Your task to perform on an android device: Open the stopwatch Image 0: 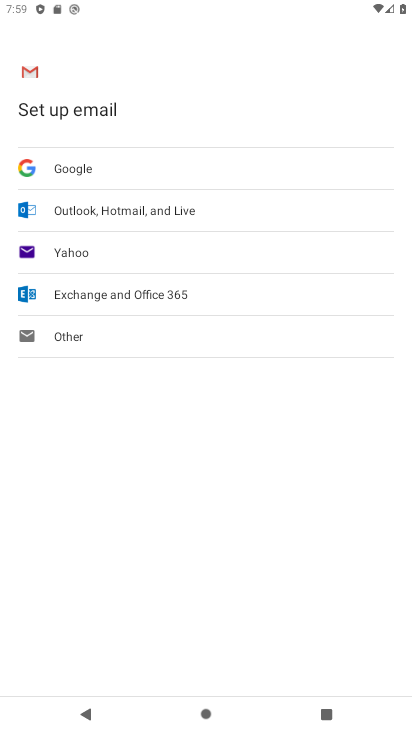
Step 0: press back button
Your task to perform on an android device: Open the stopwatch Image 1: 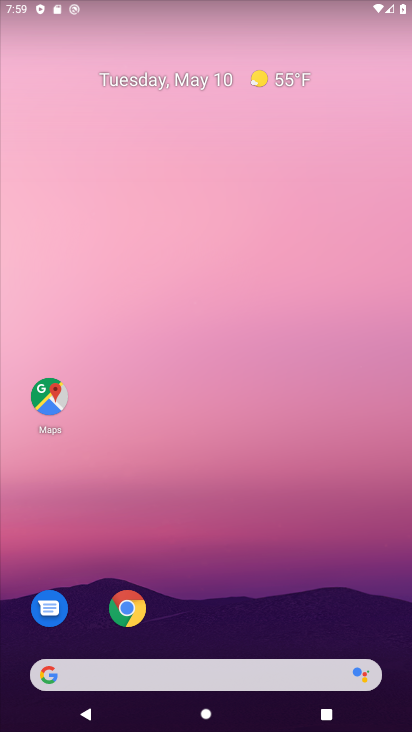
Step 1: drag from (256, 604) to (178, 130)
Your task to perform on an android device: Open the stopwatch Image 2: 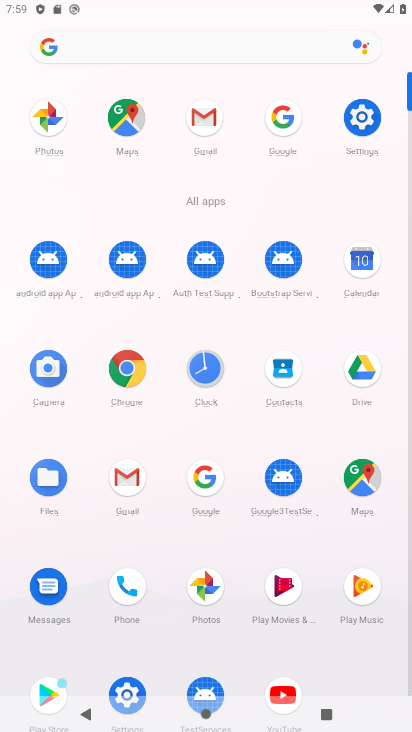
Step 2: click (206, 369)
Your task to perform on an android device: Open the stopwatch Image 3: 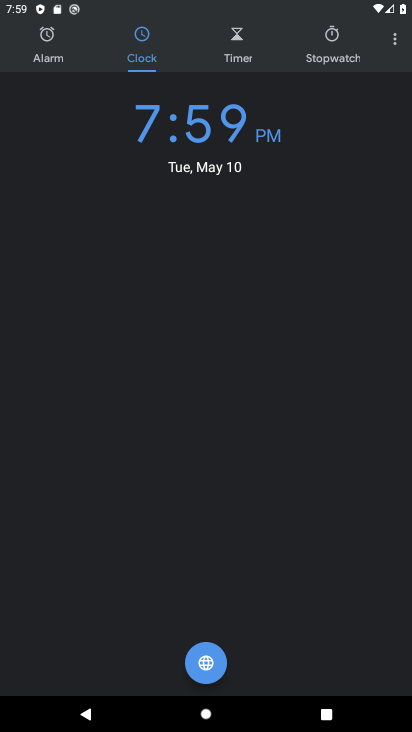
Step 3: click (333, 36)
Your task to perform on an android device: Open the stopwatch Image 4: 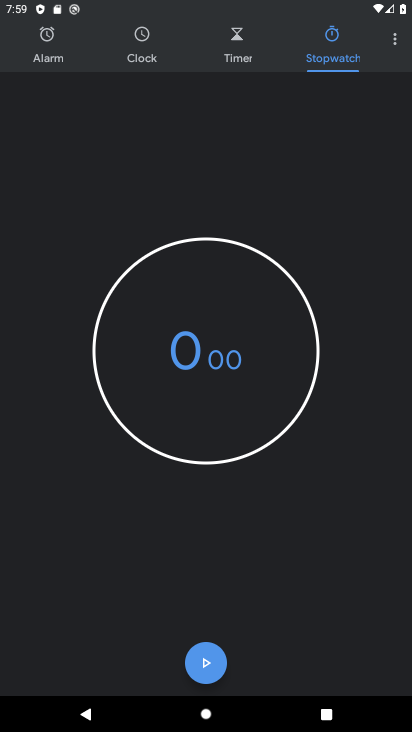
Step 4: click (244, 345)
Your task to perform on an android device: Open the stopwatch Image 5: 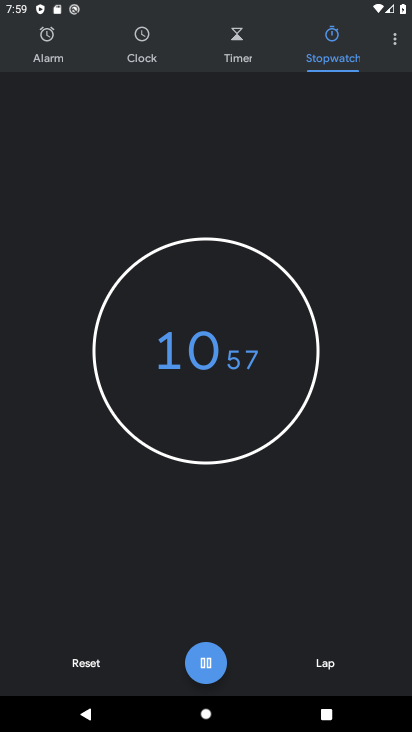
Step 5: click (227, 357)
Your task to perform on an android device: Open the stopwatch Image 6: 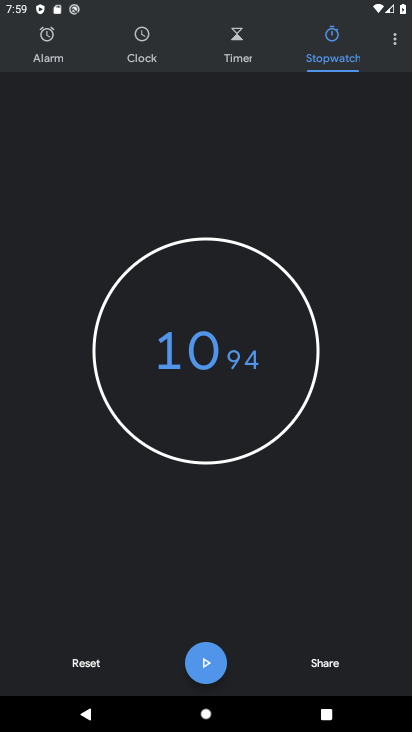
Step 6: task complete